Your task to perform on an android device: Play the last video I watched on Youtube Image 0: 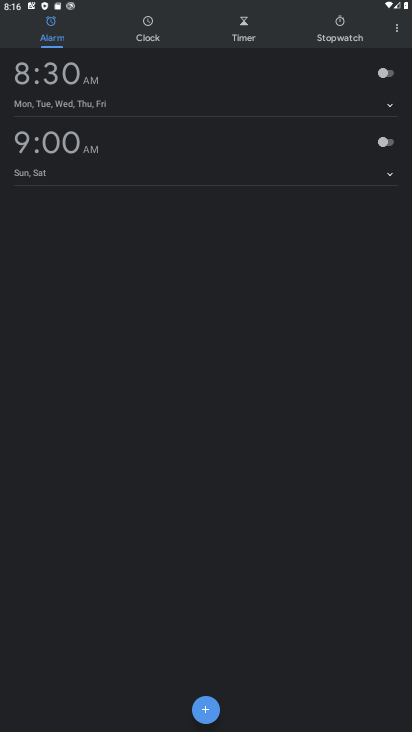
Step 0: press home button
Your task to perform on an android device: Play the last video I watched on Youtube Image 1: 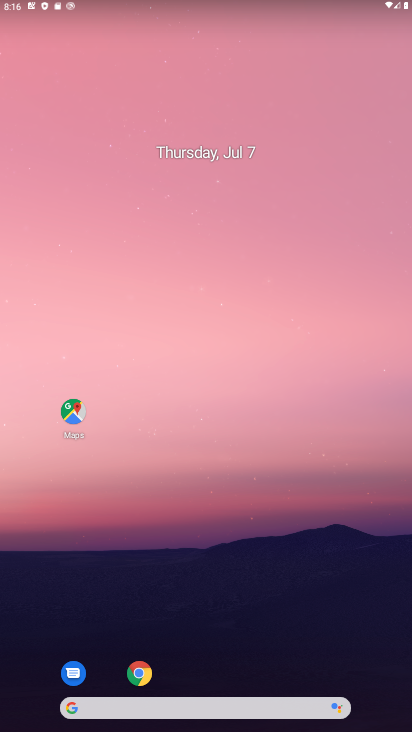
Step 1: drag from (256, 660) to (217, 164)
Your task to perform on an android device: Play the last video I watched on Youtube Image 2: 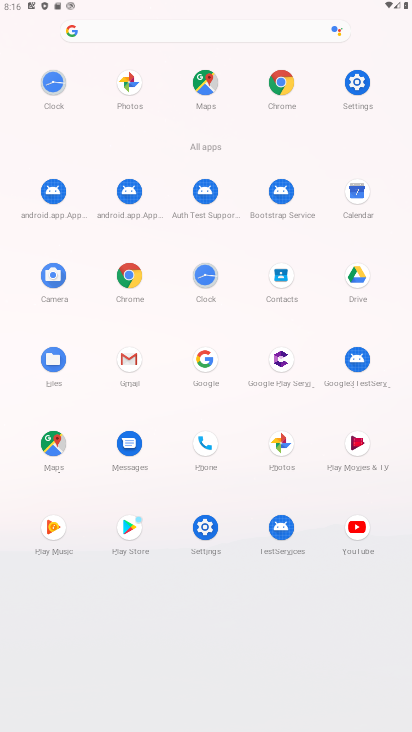
Step 2: click (359, 521)
Your task to perform on an android device: Play the last video I watched on Youtube Image 3: 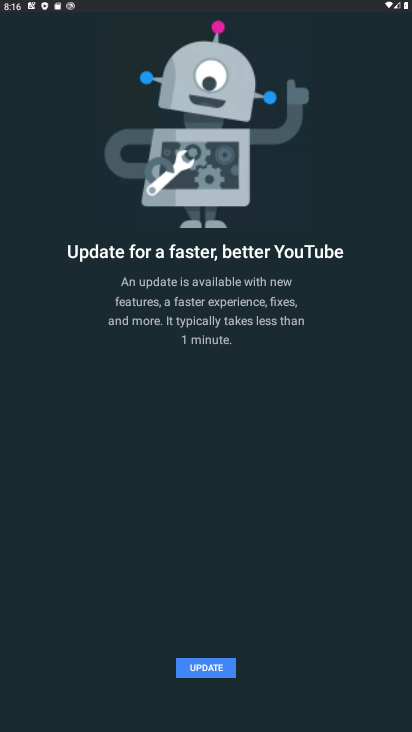
Step 3: click (209, 673)
Your task to perform on an android device: Play the last video I watched on Youtube Image 4: 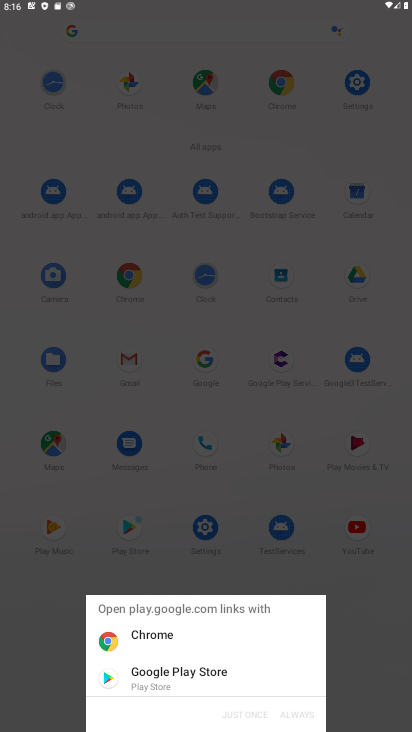
Step 4: click (138, 673)
Your task to perform on an android device: Play the last video I watched on Youtube Image 5: 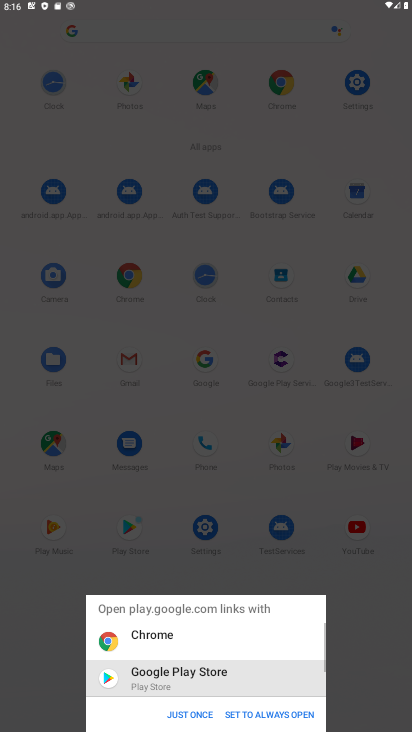
Step 5: click (178, 715)
Your task to perform on an android device: Play the last video I watched on Youtube Image 6: 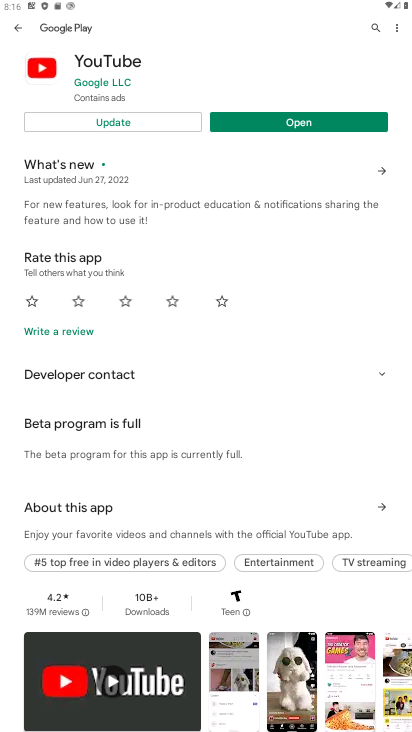
Step 6: click (125, 115)
Your task to perform on an android device: Play the last video I watched on Youtube Image 7: 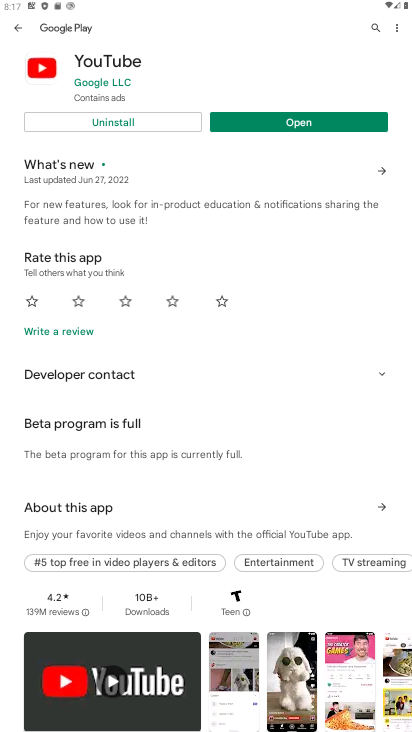
Step 7: click (302, 124)
Your task to perform on an android device: Play the last video I watched on Youtube Image 8: 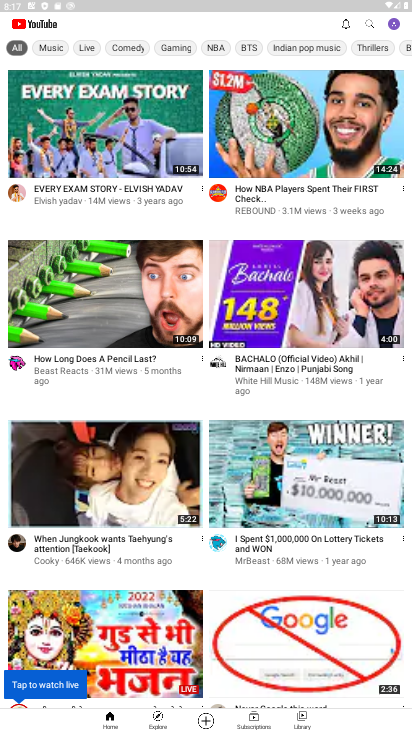
Step 8: click (309, 727)
Your task to perform on an android device: Play the last video I watched on Youtube Image 9: 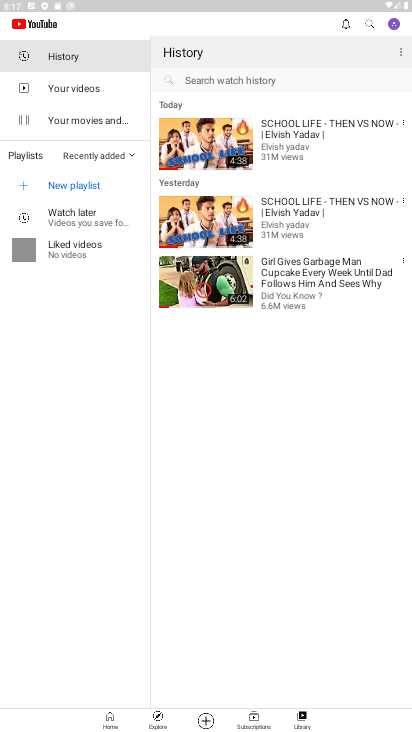
Step 9: click (224, 137)
Your task to perform on an android device: Play the last video I watched on Youtube Image 10: 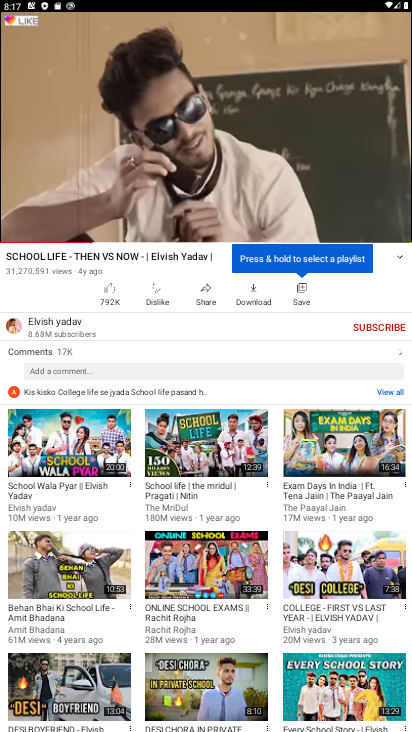
Step 10: task complete